Your task to perform on an android device: Open Google Chrome Image 0: 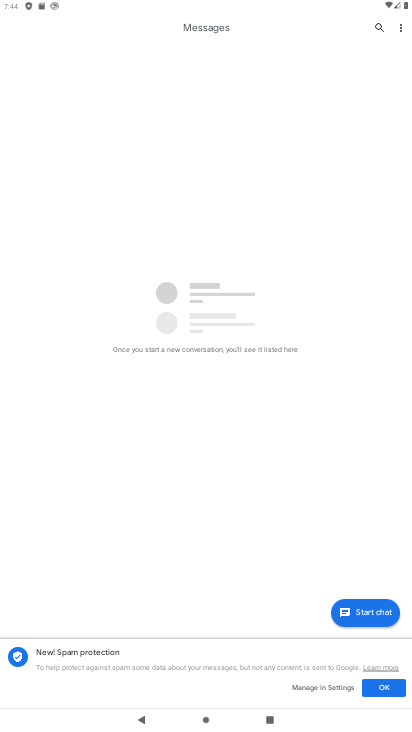
Step 0: press home button
Your task to perform on an android device: Open Google Chrome Image 1: 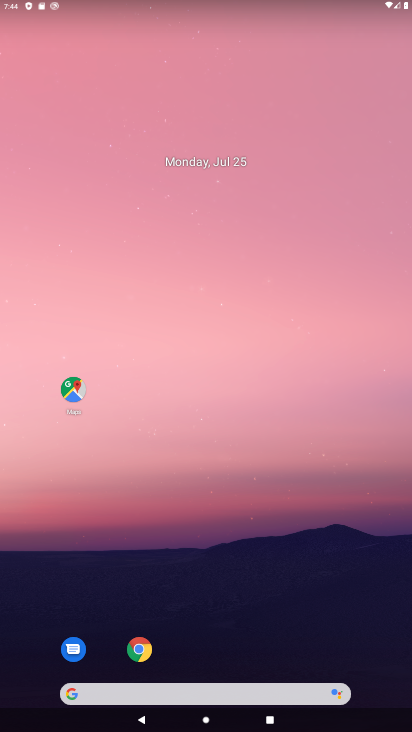
Step 1: click (138, 650)
Your task to perform on an android device: Open Google Chrome Image 2: 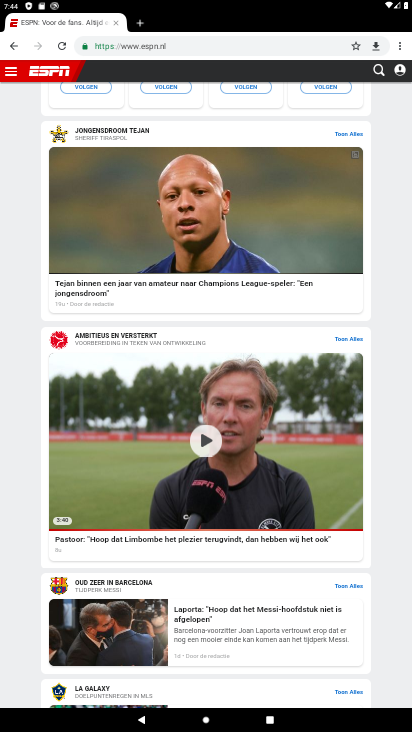
Step 2: task complete